Your task to perform on an android device: open app "Google Home" (install if not already installed) Image 0: 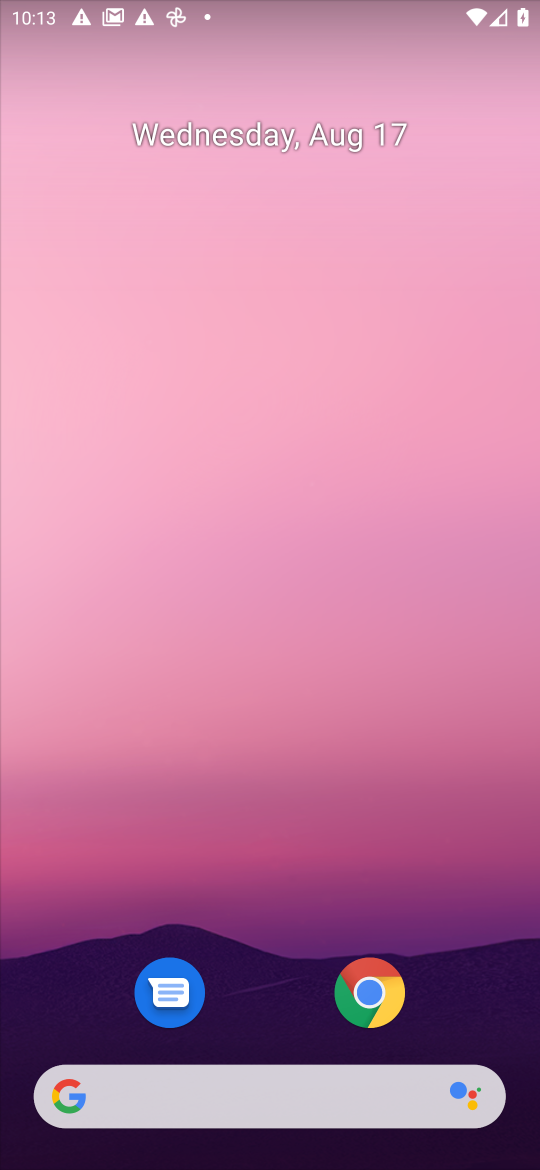
Step 0: drag from (489, 927) to (121, 9)
Your task to perform on an android device: open app "Google Home" (install if not already installed) Image 1: 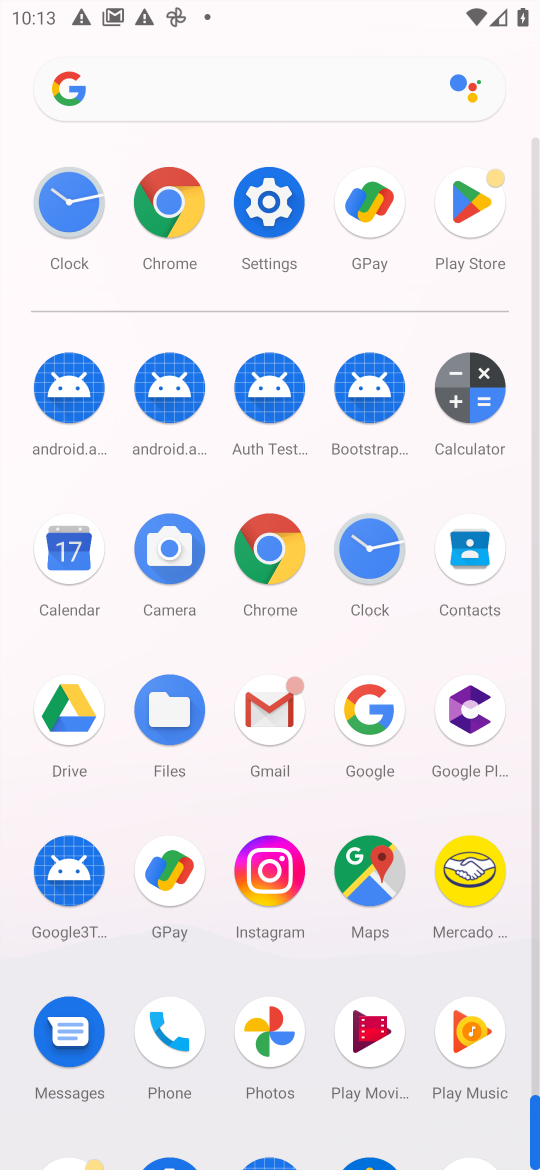
Step 1: click (469, 225)
Your task to perform on an android device: open app "Google Home" (install if not already installed) Image 2: 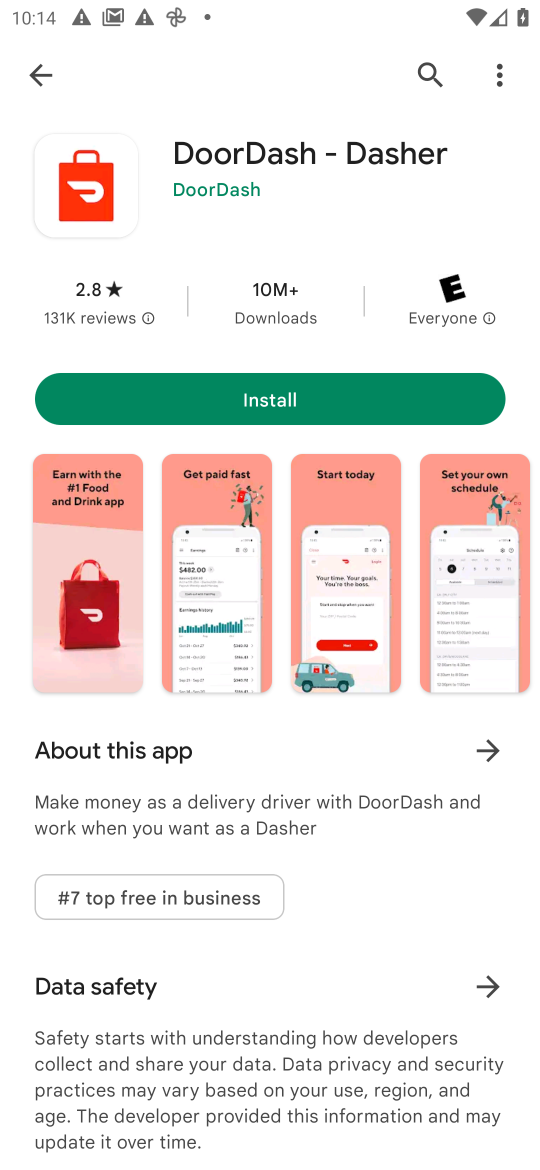
Step 2: task complete